Your task to perform on an android device: Is it going to rain this weekend? Image 0: 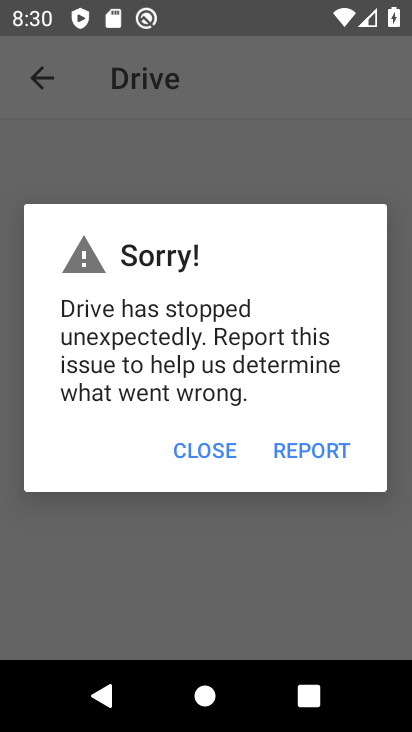
Step 0: press back button
Your task to perform on an android device: Is it going to rain this weekend? Image 1: 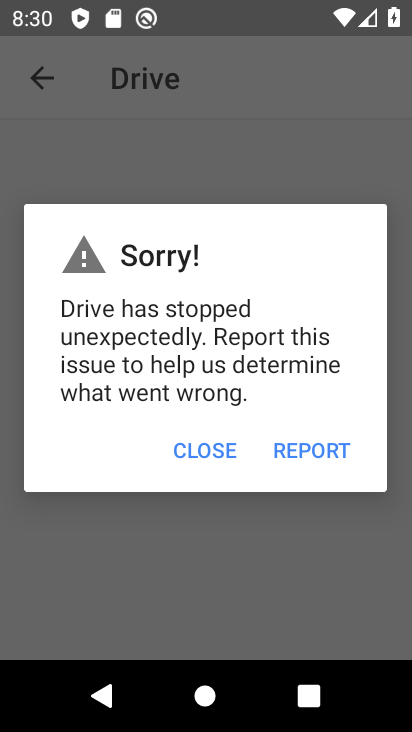
Step 1: press back button
Your task to perform on an android device: Is it going to rain this weekend? Image 2: 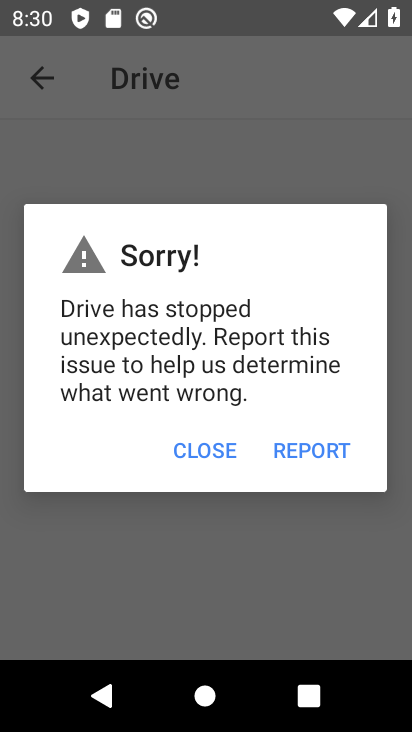
Step 2: press home button
Your task to perform on an android device: Is it going to rain this weekend? Image 3: 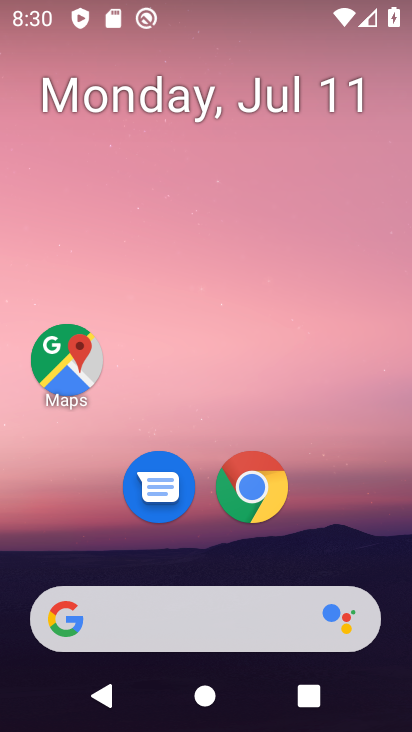
Step 3: drag from (194, 511) to (325, 7)
Your task to perform on an android device: Is it going to rain this weekend? Image 4: 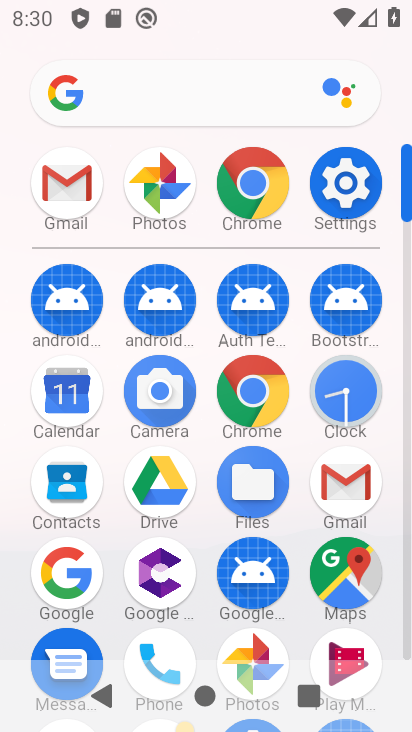
Step 4: click (219, 91)
Your task to perform on an android device: Is it going to rain this weekend? Image 5: 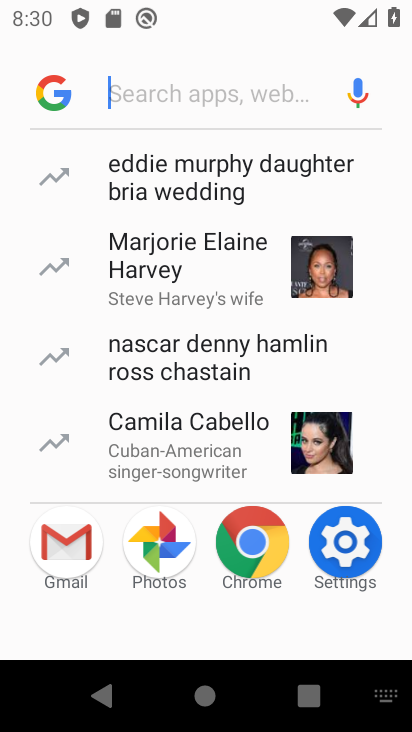
Step 5: click (160, 107)
Your task to perform on an android device: Is it going to rain this weekend? Image 6: 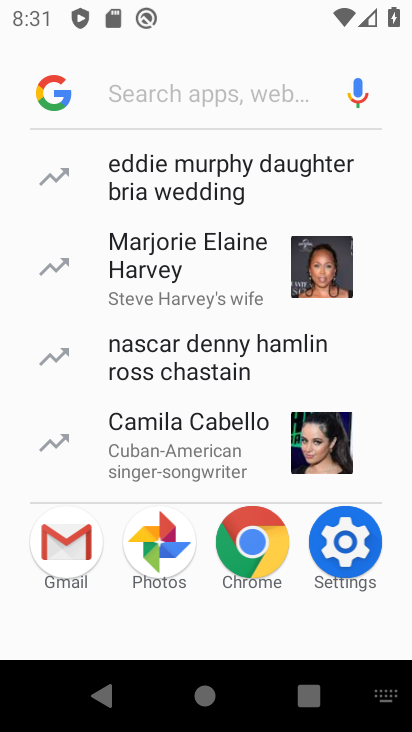
Step 6: type "is it going to rain this weekend"
Your task to perform on an android device: Is it going to rain this weekend? Image 7: 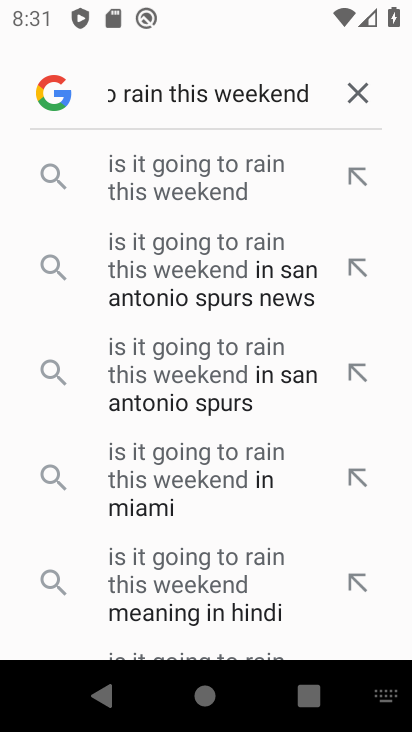
Step 7: click (216, 158)
Your task to perform on an android device: Is it going to rain this weekend? Image 8: 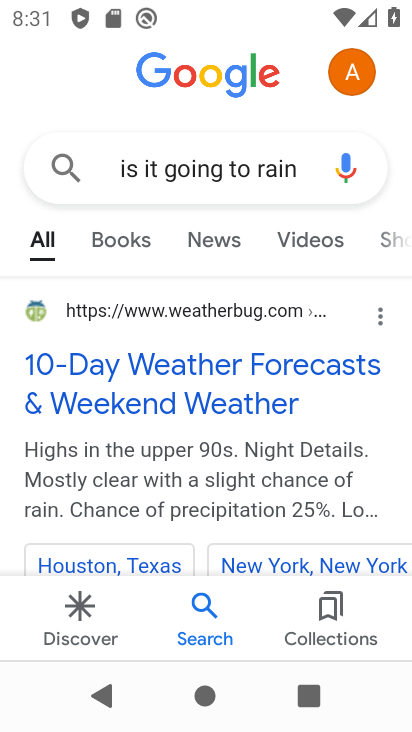
Step 8: task complete